Your task to perform on an android device: uninstall "Google Play Games" Image 0: 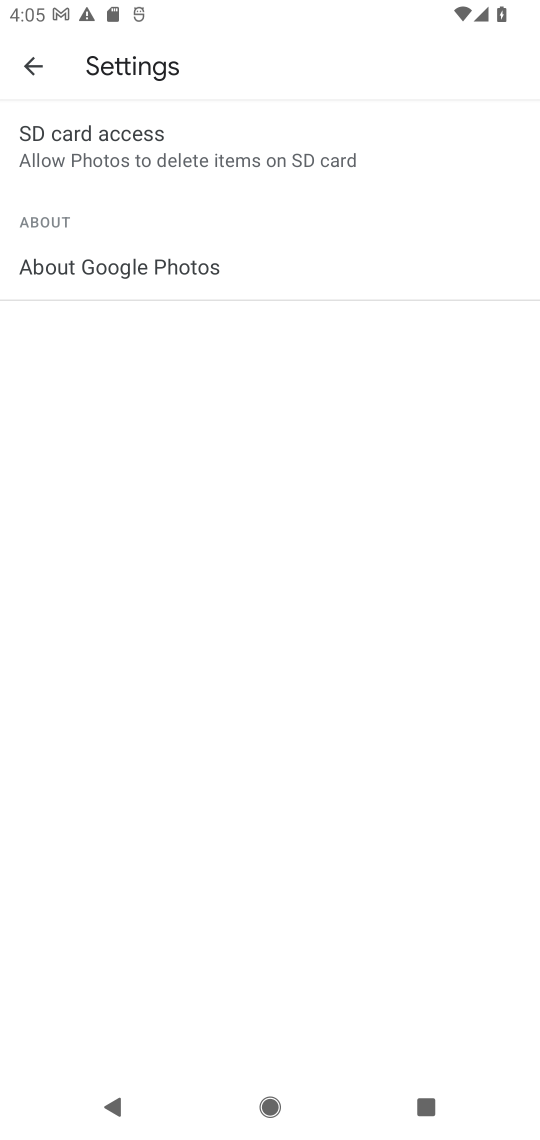
Step 0: press home button
Your task to perform on an android device: uninstall "Google Play Games" Image 1: 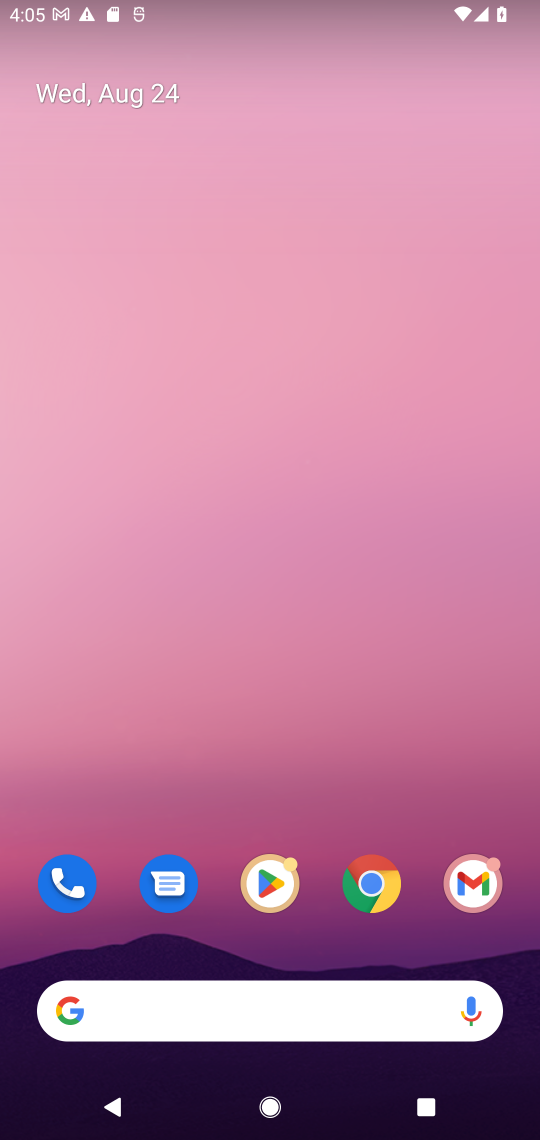
Step 1: drag from (247, 977) to (209, 320)
Your task to perform on an android device: uninstall "Google Play Games" Image 2: 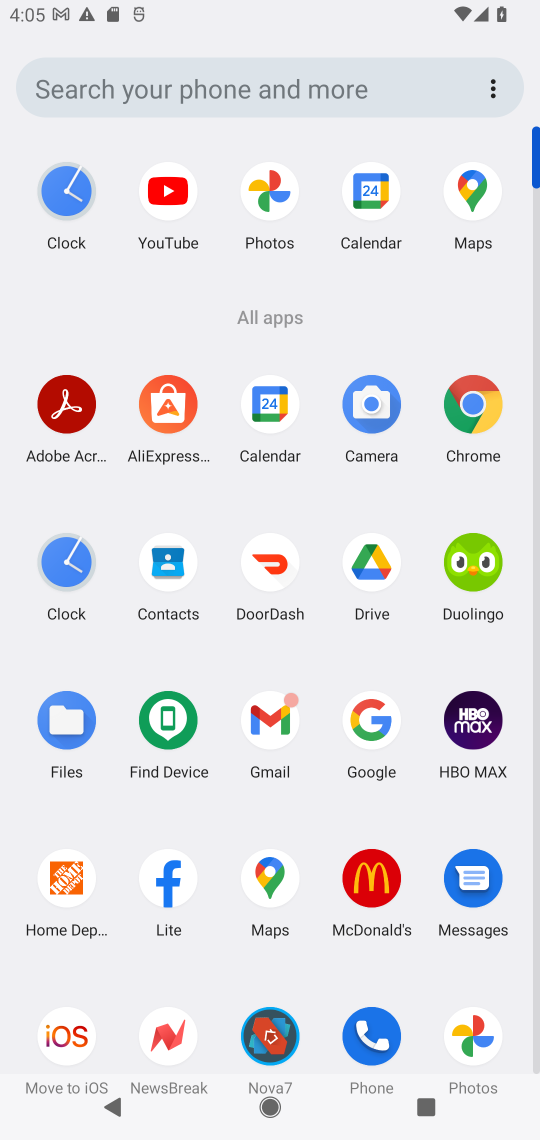
Step 2: drag from (337, 1045) to (339, 370)
Your task to perform on an android device: uninstall "Google Play Games" Image 3: 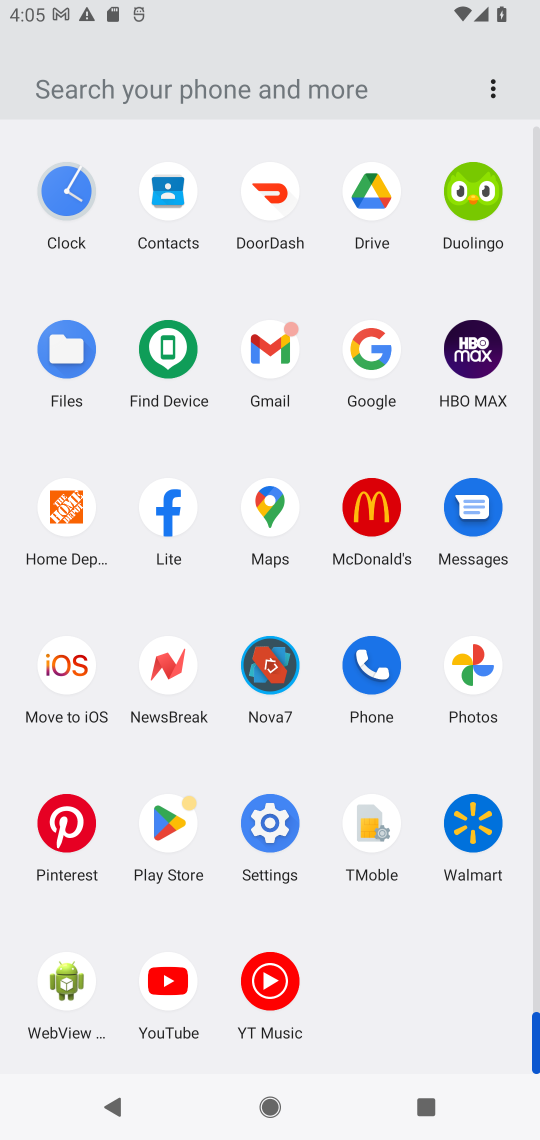
Step 3: click (167, 822)
Your task to perform on an android device: uninstall "Google Play Games" Image 4: 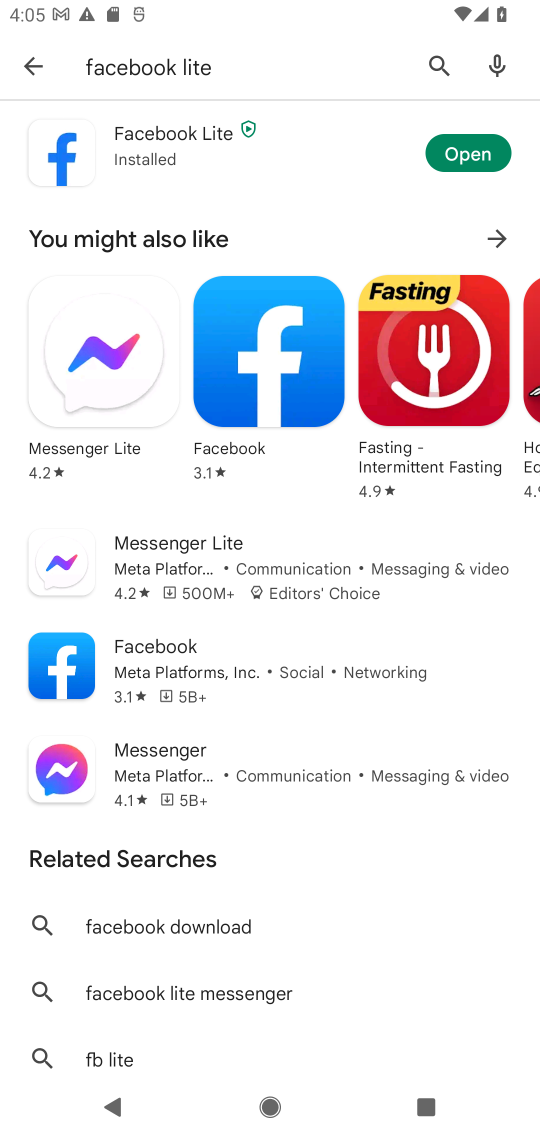
Step 4: click (442, 58)
Your task to perform on an android device: uninstall "Google Play Games" Image 5: 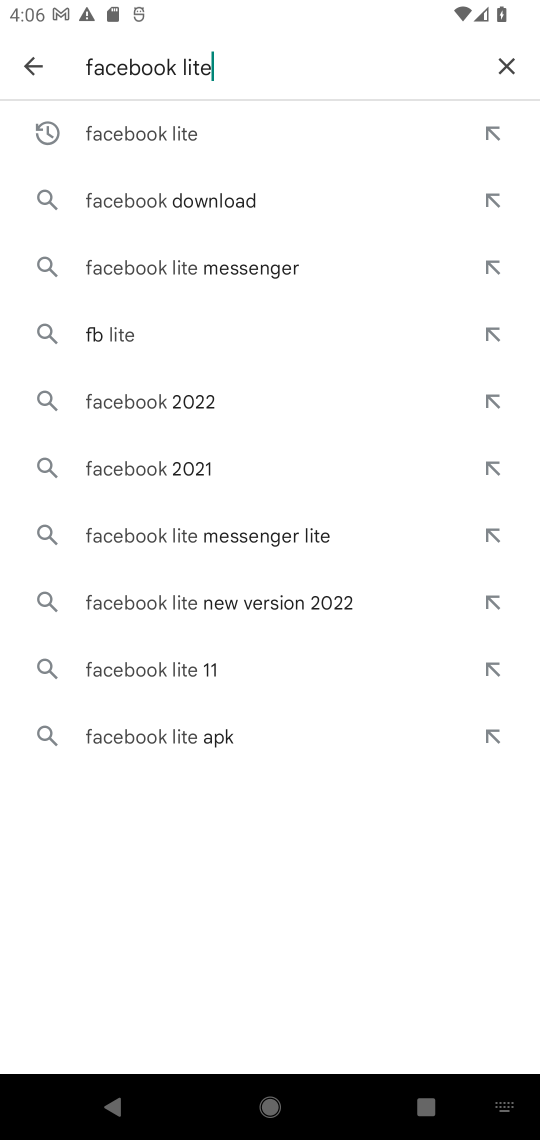
Step 5: click (500, 67)
Your task to perform on an android device: uninstall "Google Play Games" Image 6: 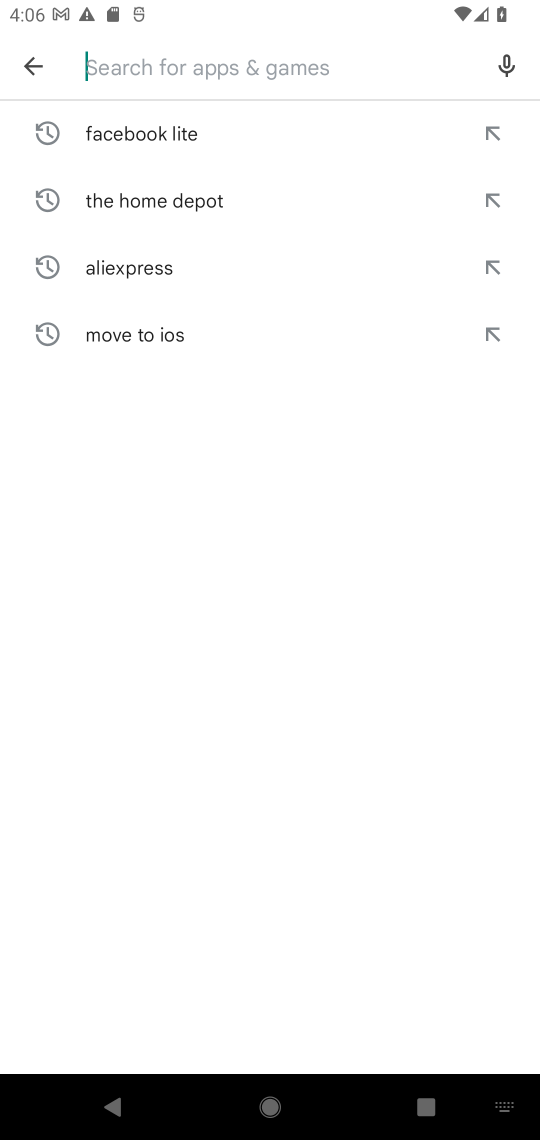
Step 6: type "Google Play Games"
Your task to perform on an android device: uninstall "Google Play Games" Image 7: 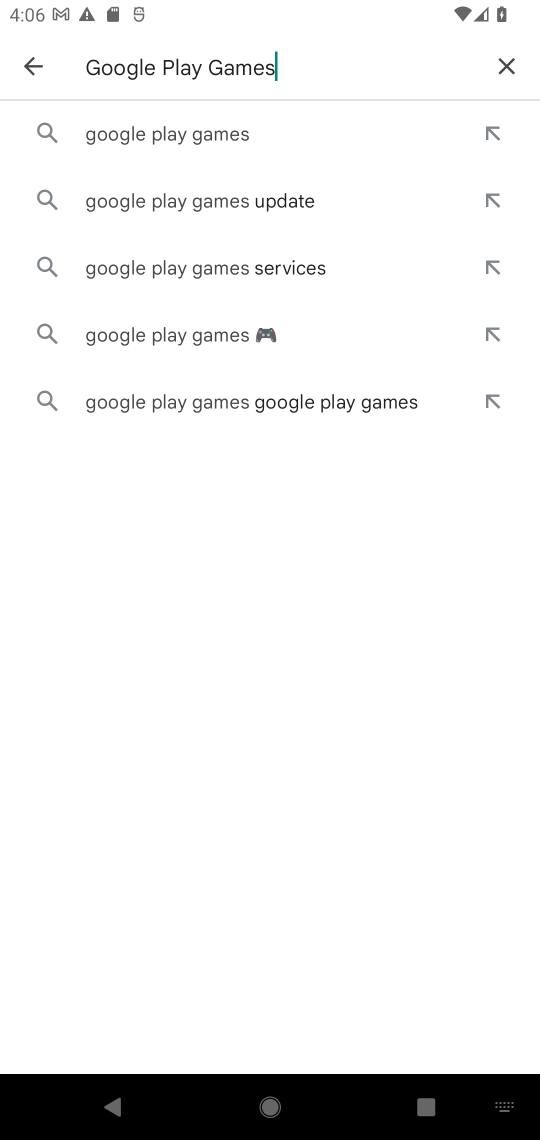
Step 7: click (172, 131)
Your task to perform on an android device: uninstall "Google Play Games" Image 8: 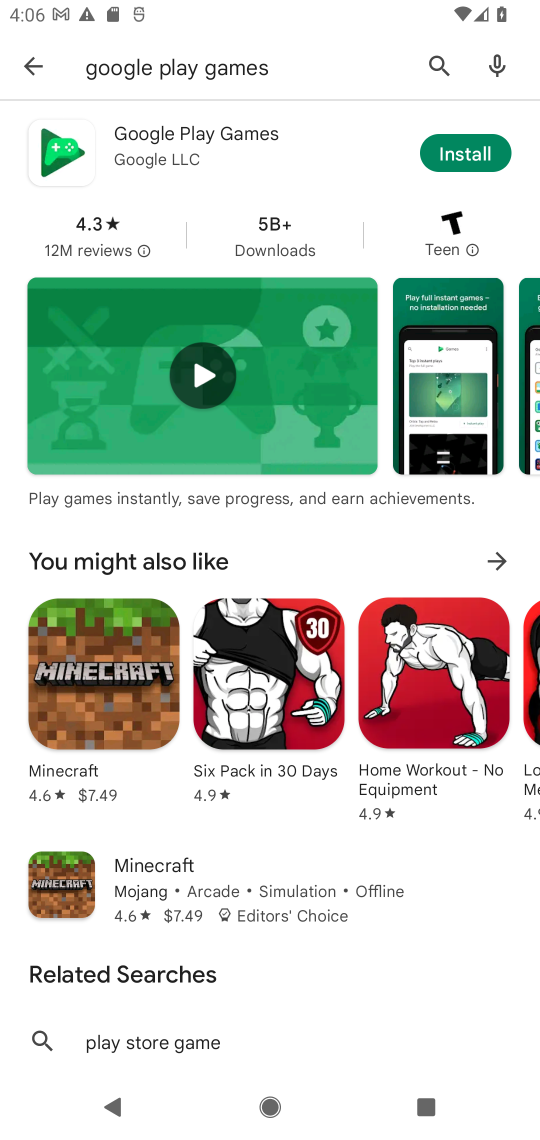
Step 8: task complete